Your task to perform on an android device: check out phone information Image 0: 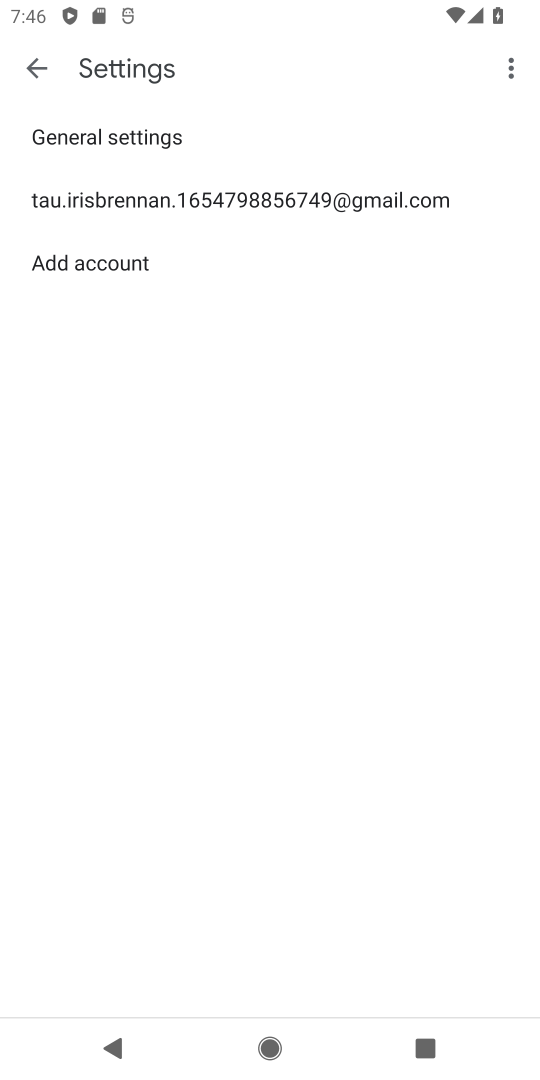
Step 0: press back button
Your task to perform on an android device: check out phone information Image 1: 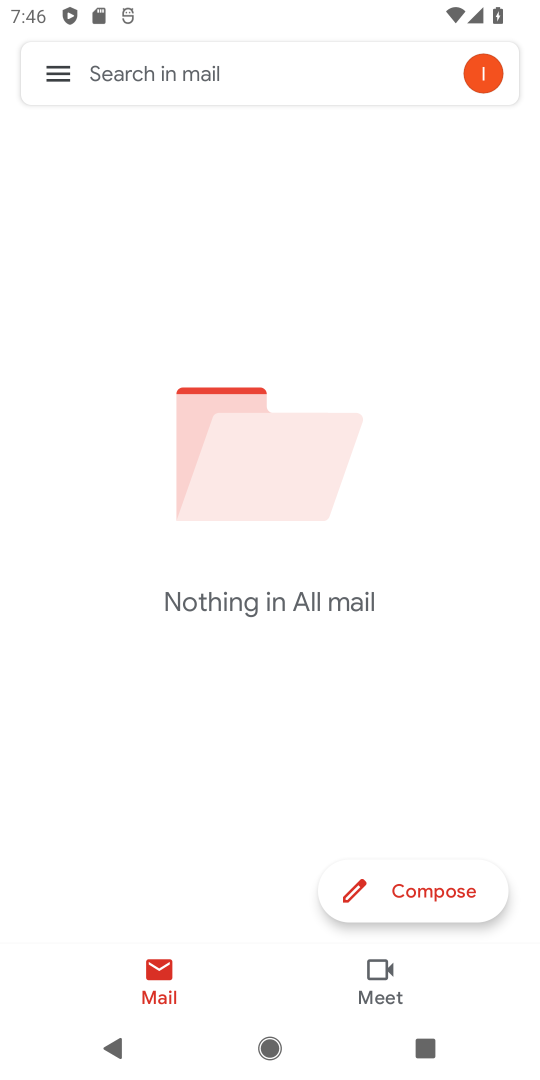
Step 1: press home button
Your task to perform on an android device: check out phone information Image 2: 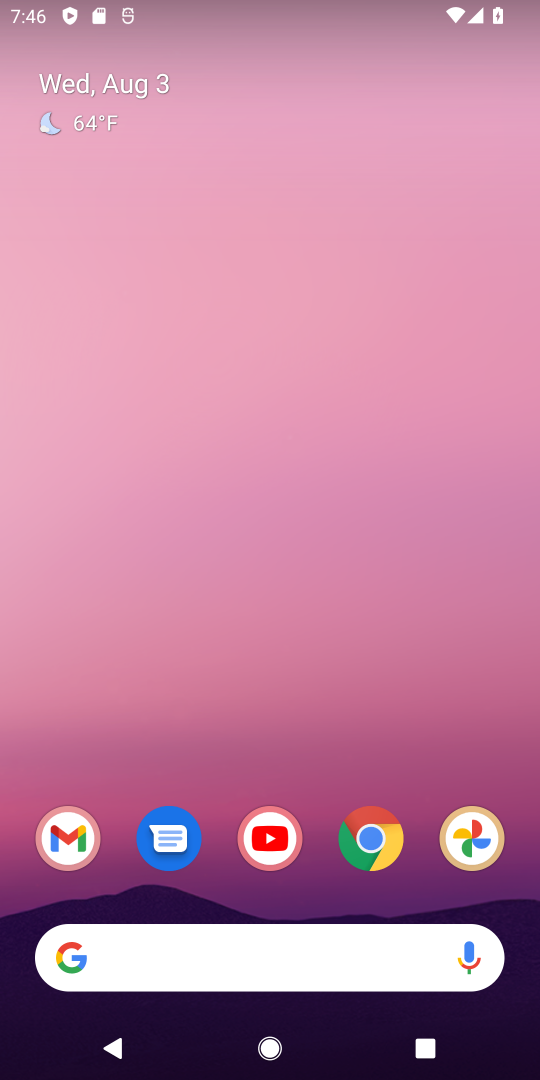
Step 2: drag from (244, 854) to (246, 30)
Your task to perform on an android device: check out phone information Image 3: 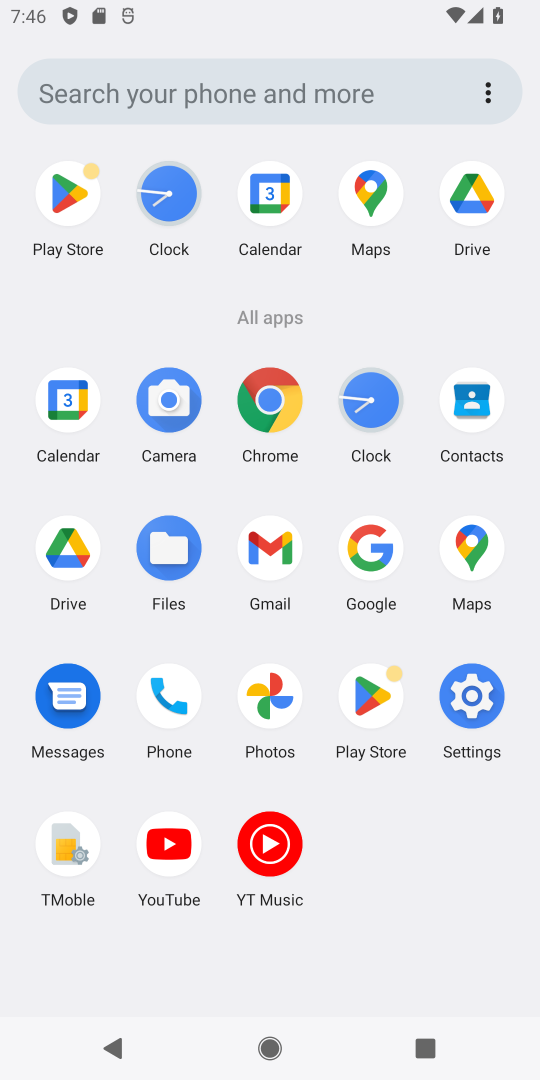
Step 3: click (479, 699)
Your task to perform on an android device: check out phone information Image 4: 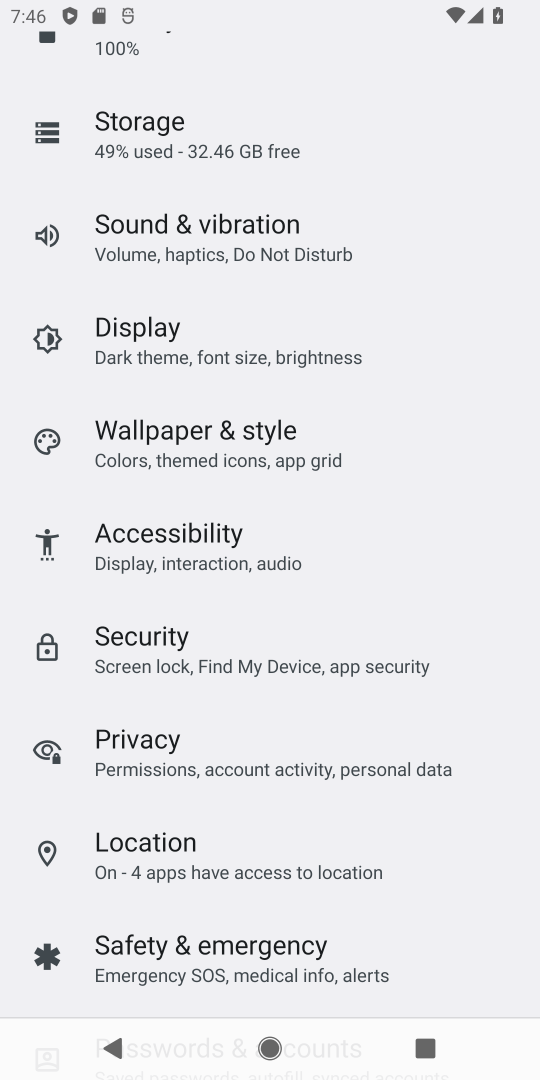
Step 4: drag from (152, 944) to (219, 254)
Your task to perform on an android device: check out phone information Image 5: 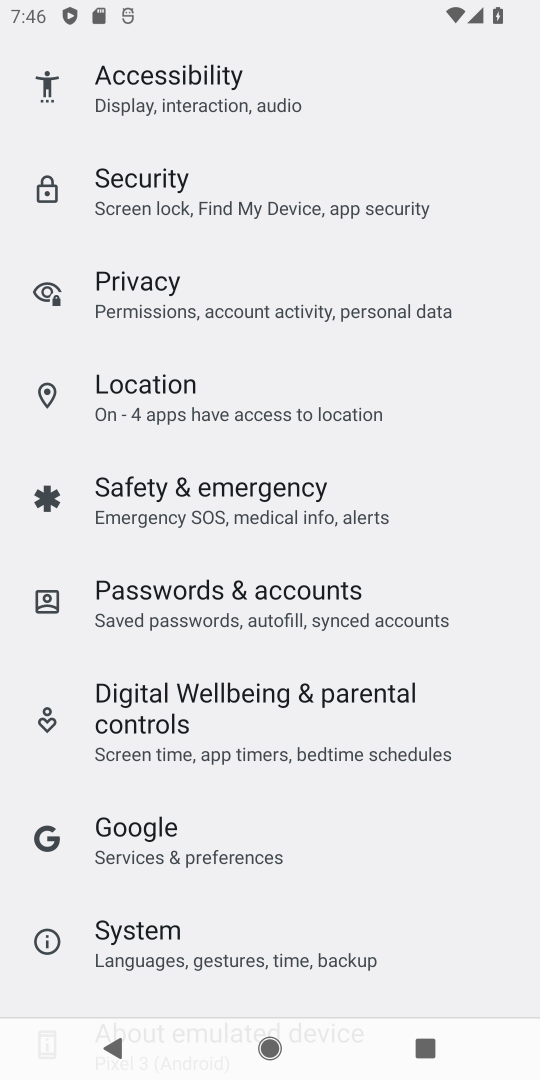
Step 5: drag from (211, 873) to (228, 427)
Your task to perform on an android device: check out phone information Image 6: 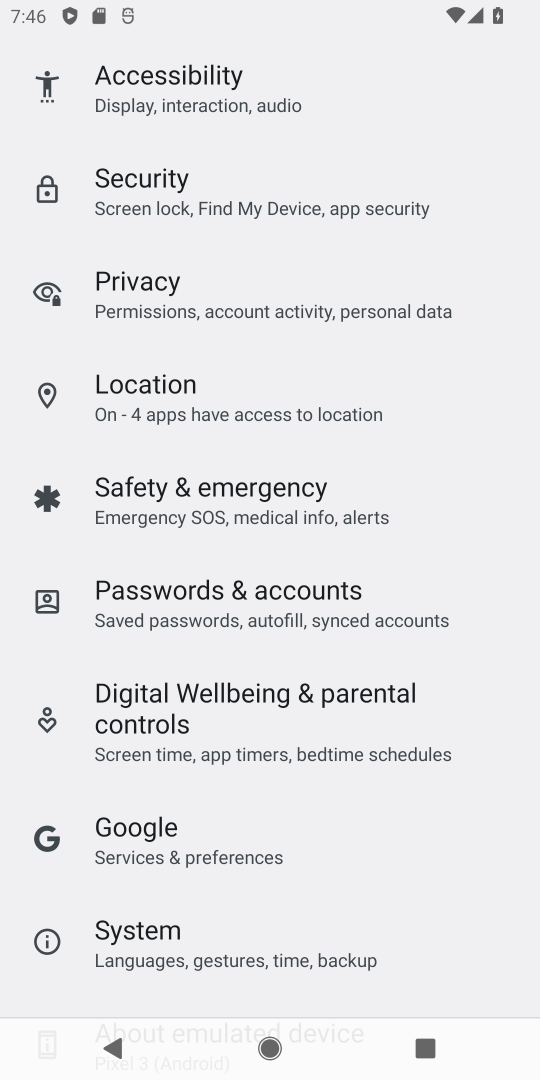
Step 6: drag from (251, 924) to (251, 439)
Your task to perform on an android device: check out phone information Image 7: 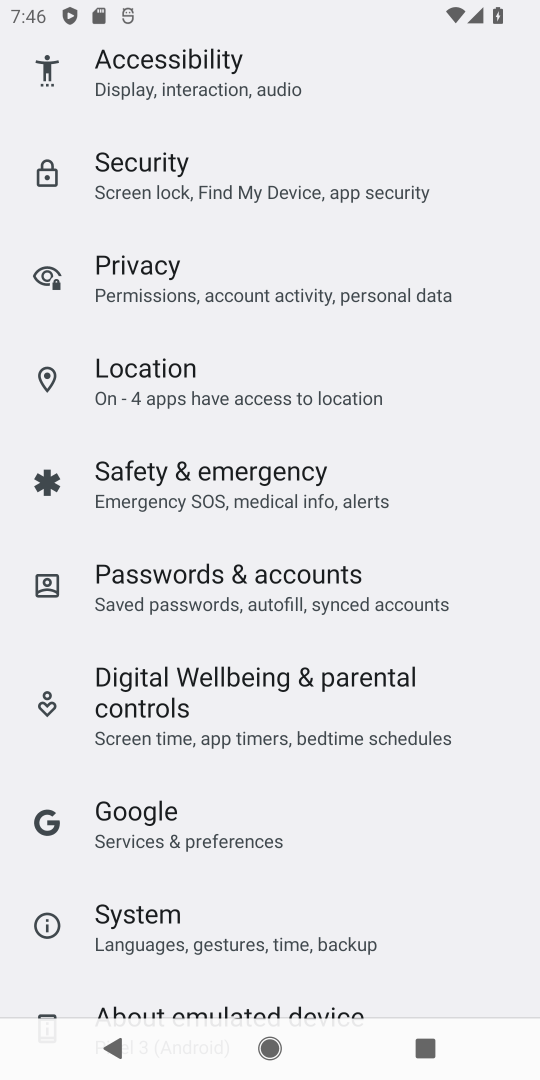
Step 7: click (170, 539)
Your task to perform on an android device: check out phone information Image 8: 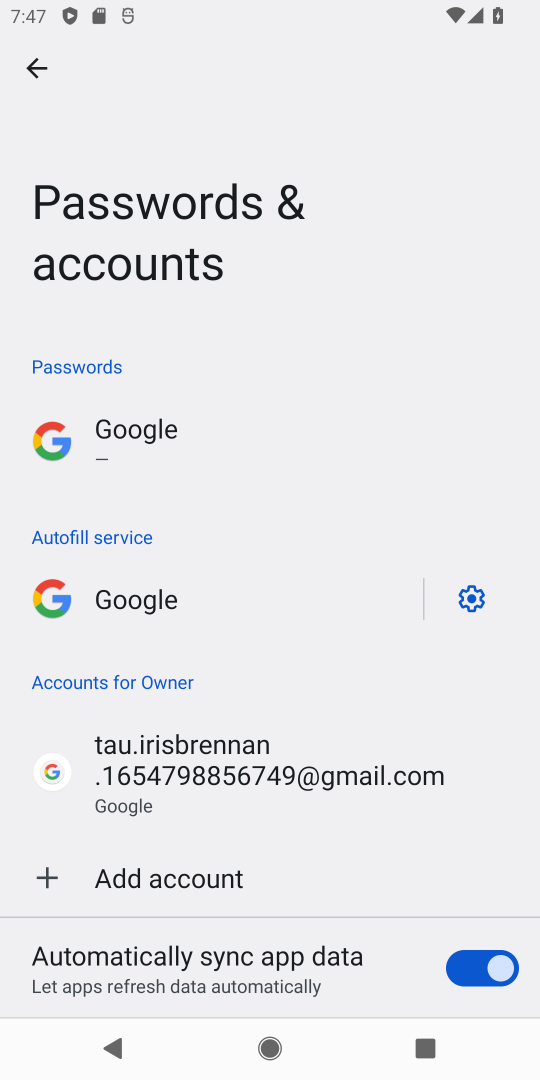
Step 8: click (39, 71)
Your task to perform on an android device: check out phone information Image 9: 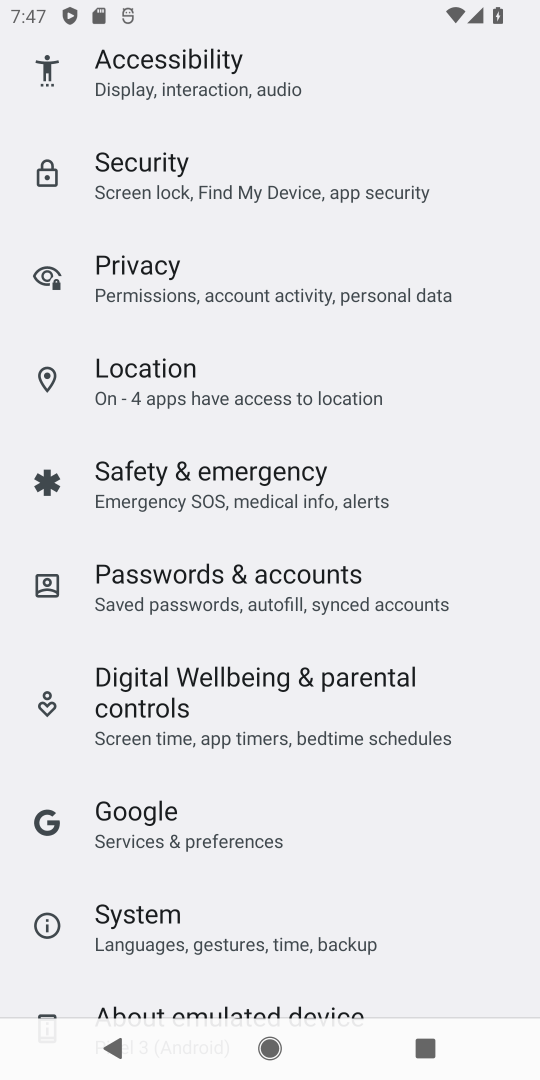
Step 9: click (316, 277)
Your task to perform on an android device: check out phone information Image 10: 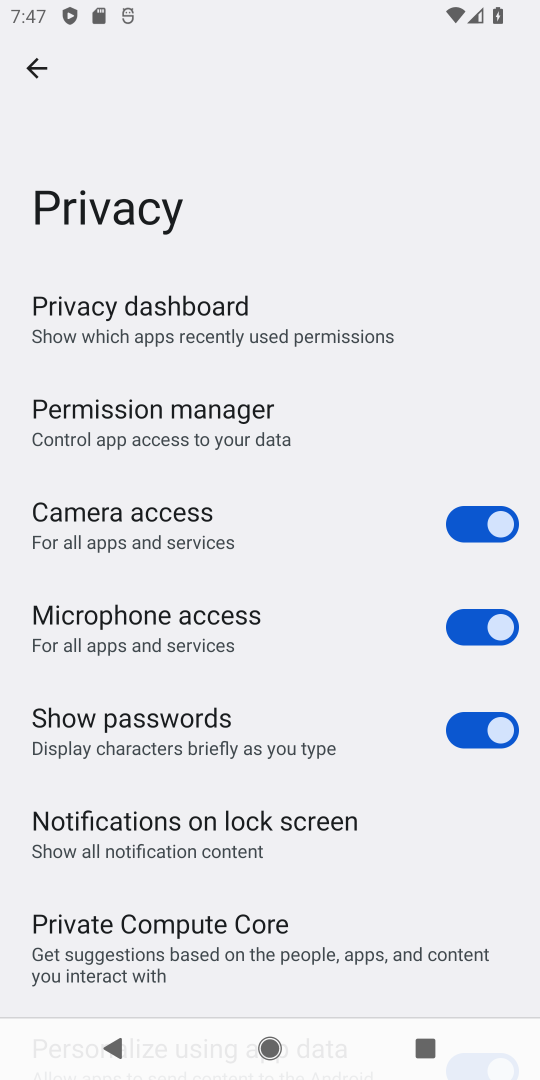
Step 10: click (32, 71)
Your task to perform on an android device: check out phone information Image 11: 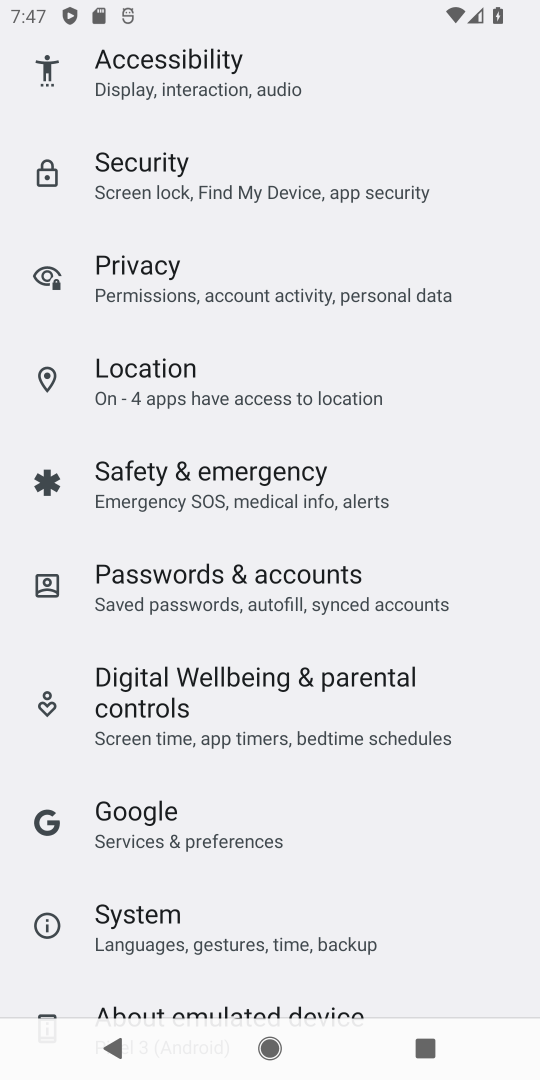
Step 11: drag from (155, 932) to (165, 393)
Your task to perform on an android device: check out phone information Image 12: 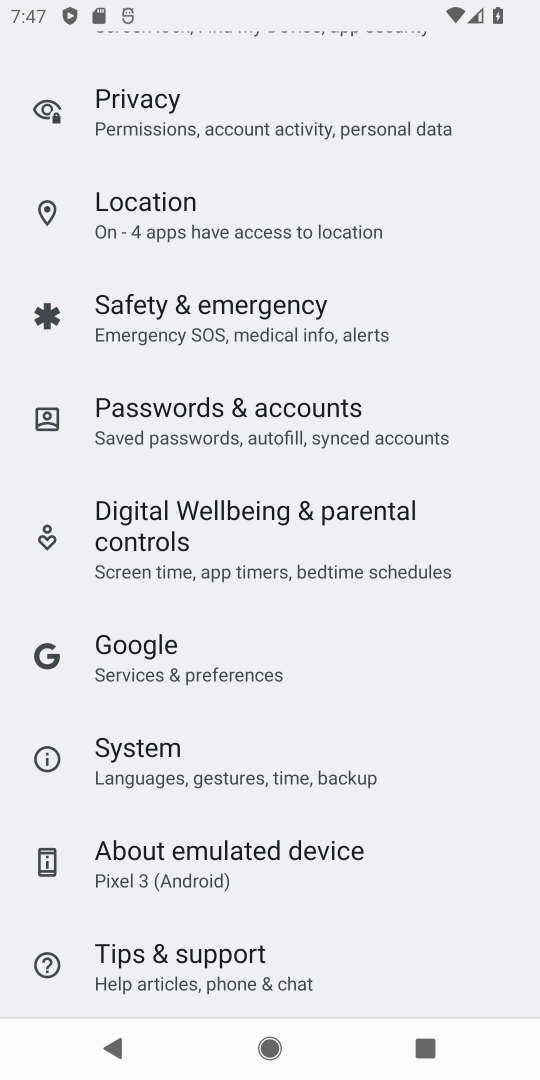
Step 12: click (213, 873)
Your task to perform on an android device: check out phone information Image 13: 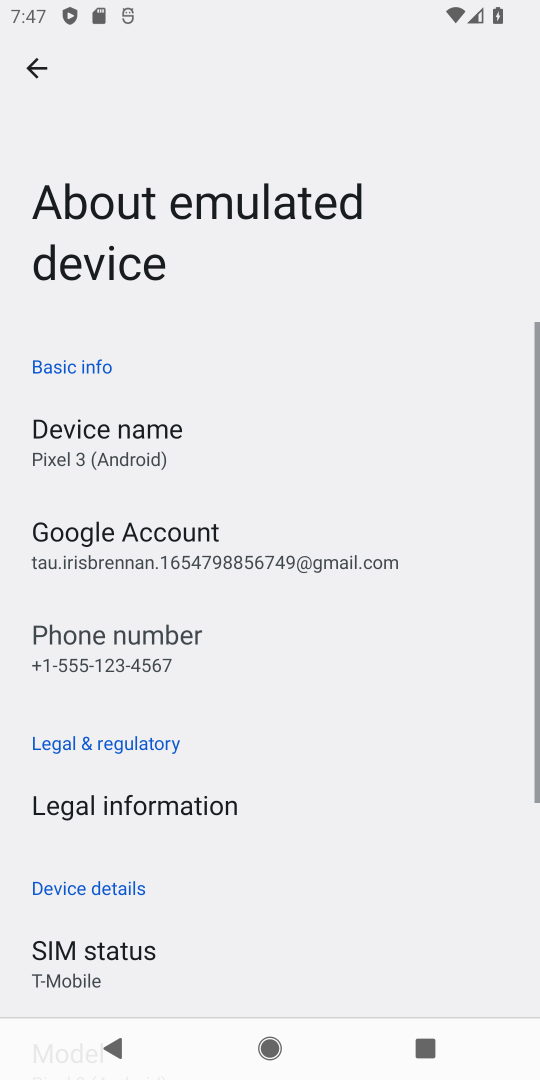
Step 13: task complete